Your task to perform on an android device: Go to accessibility settings Image 0: 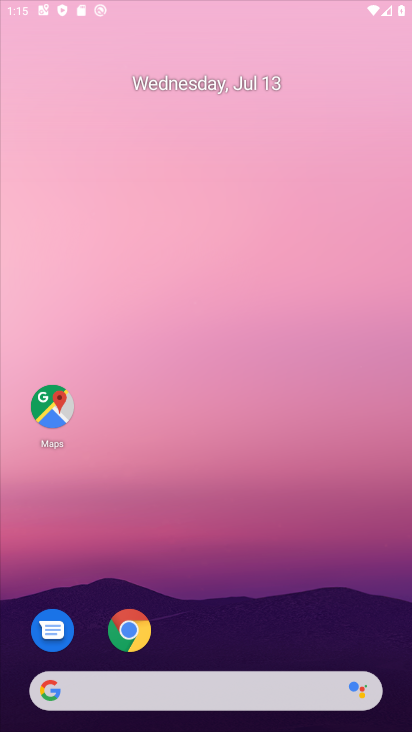
Step 0: drag from (340, 444) to (328, 113)
Your task to perform on an android device: Go to accessibility settings Image 1: 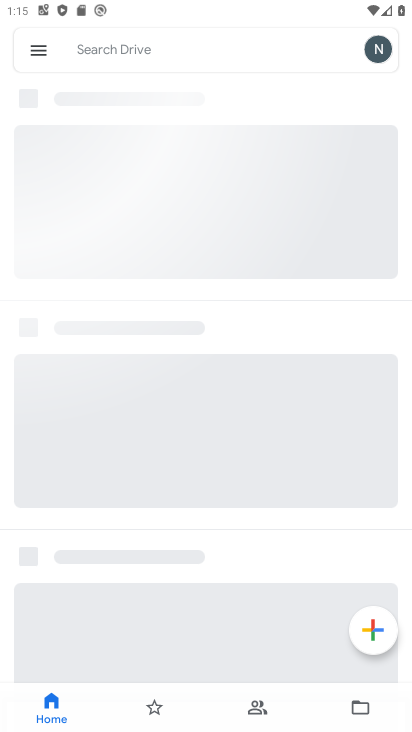
Step 1: press home button
Your task to perform on an android device: Go to accessibility settings Image 2: 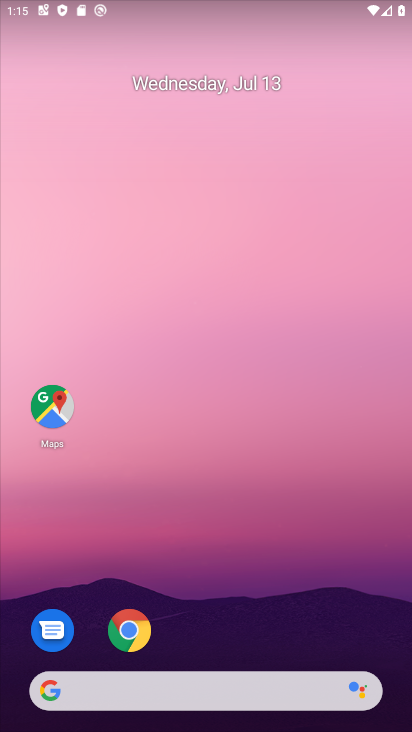
Step 2: drag from (362, 633) to (364, 96)
Your task to perform on an android device: Go to accessibility settings Image 3: 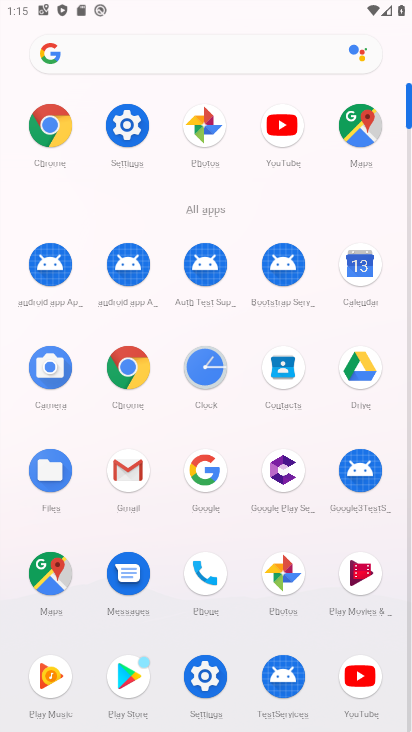
Step 3: click (133, 130)
Your task to perform on an android device: Go to accessibility settings Image 4: 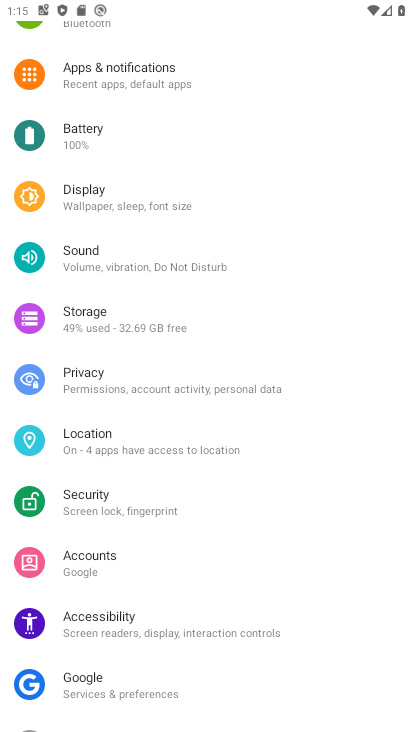
Step 4: drag from (289, 213) to (304, 378)
Your task to perform on an android device: Go to accessibility settings Image 5: 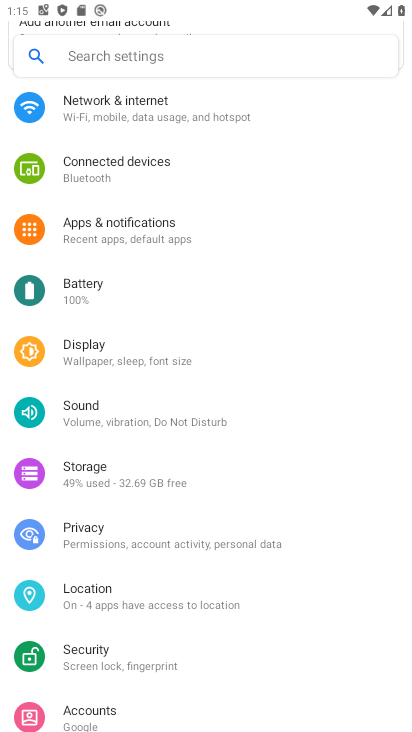
Step 5: drag from (355, 248) to (358, 446)
Your task to perform on an android device: Go to accessibility settings Image 6: 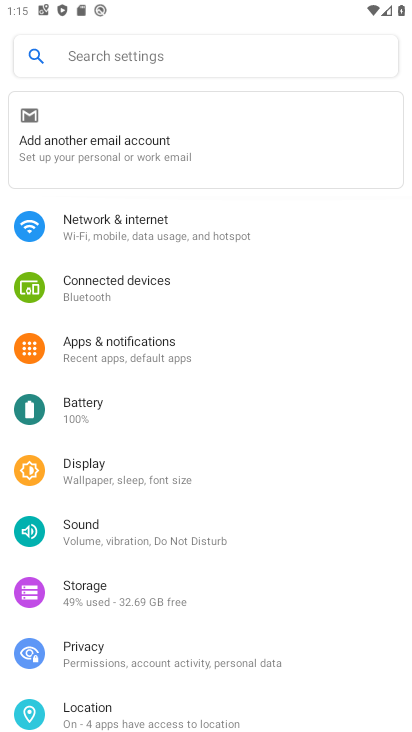
Step 6: drag from (344, 496) to (348, 385)
Your task to perform on an android device: Go to accessibility settings Image 7: 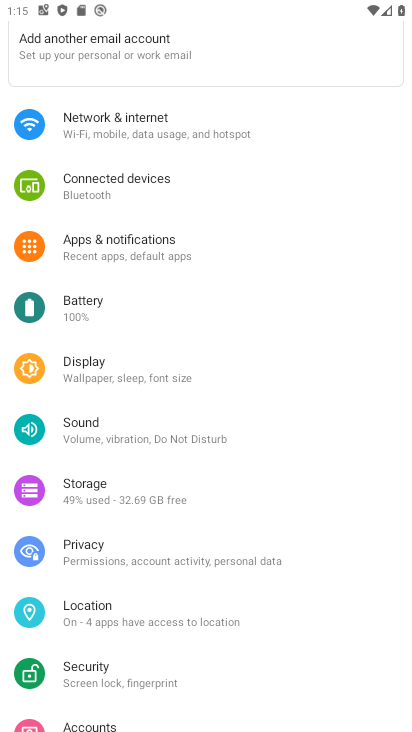
Step 7: drag from (335, 488) to (331, 203)
Your task to perform on an android device: Go to accessibility settings Image 8: 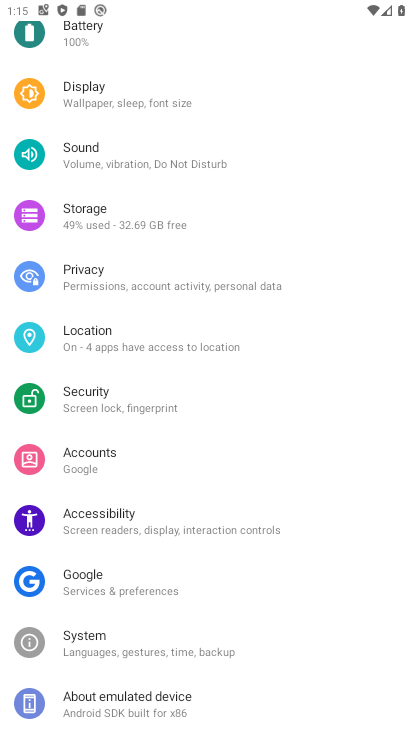
Step 8: drag from (319, 452) to (318, 249)
Your task to perform on an android device: Go to accessibility settings Image 9: 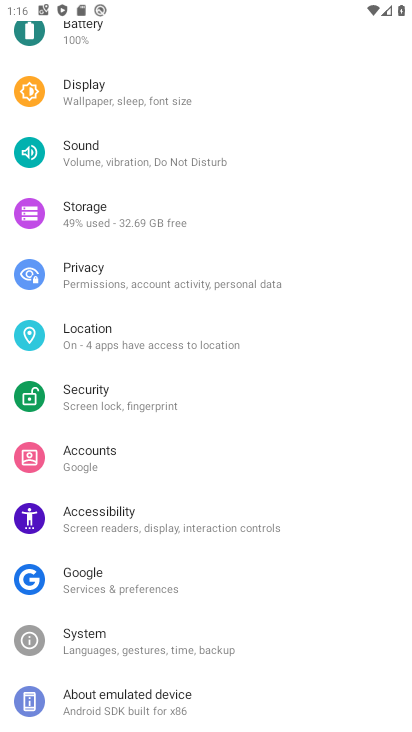
Step 9: click (254, 527)
Your task to perform on an android device: Go to accessibility settings Image 10: 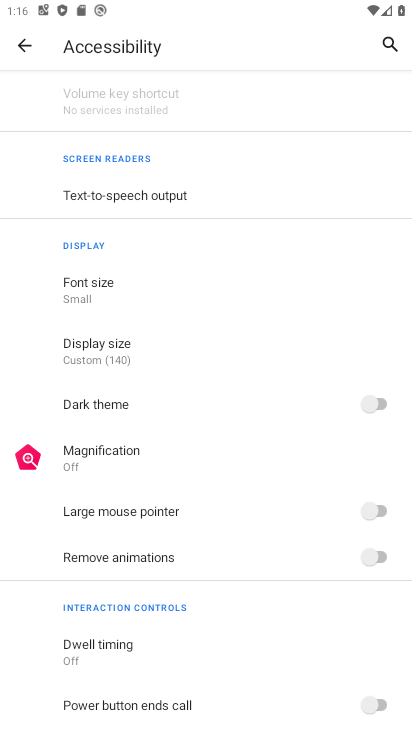
Step 10: task complete